Your task to perform on an android device: allow cookies in the chrome app Image 0: 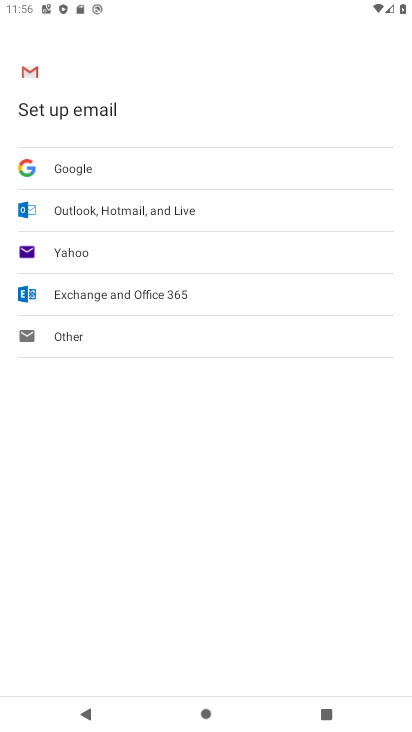
Step 0: press home button
Your task to perform on an android device: allow cookies in the chrome app Image 1: 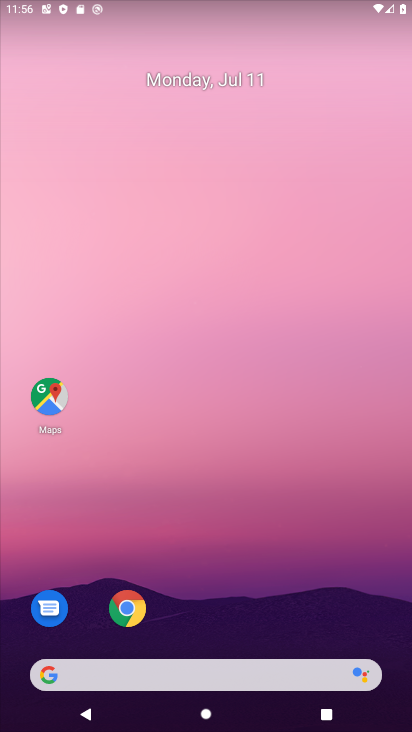
Step 1: click (123, 600)
Your task to perform on an android device: allow cookies in the chrome app Image 2: 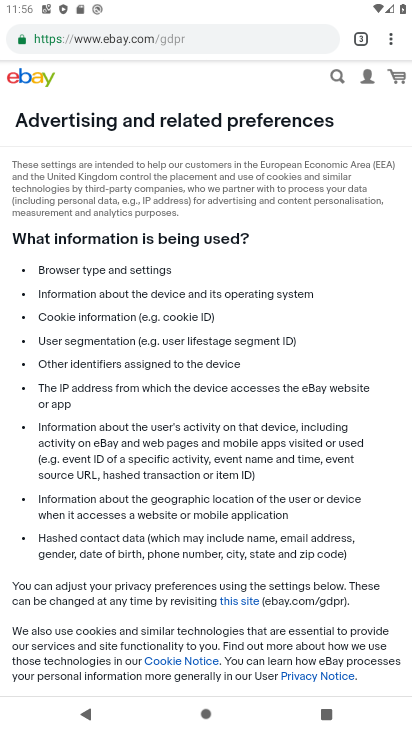
Step 2: click (401, 40)
Your task to perform on an android device: allow cookies in the chrome app Image 3: 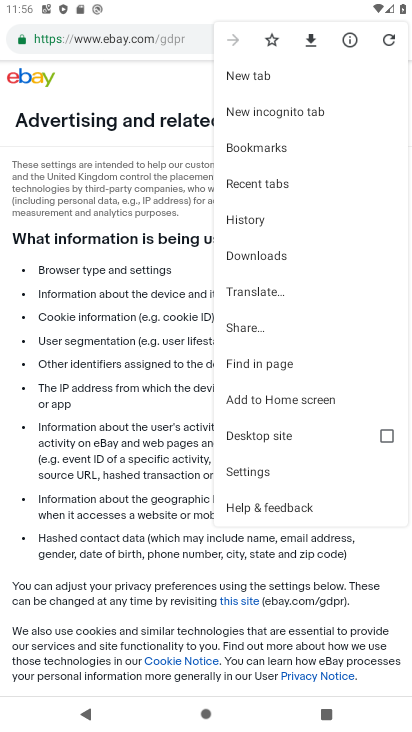
Step 3: click (250, 465)
Your task to perform on an android device: allow cookies in the chrome app Image 4: 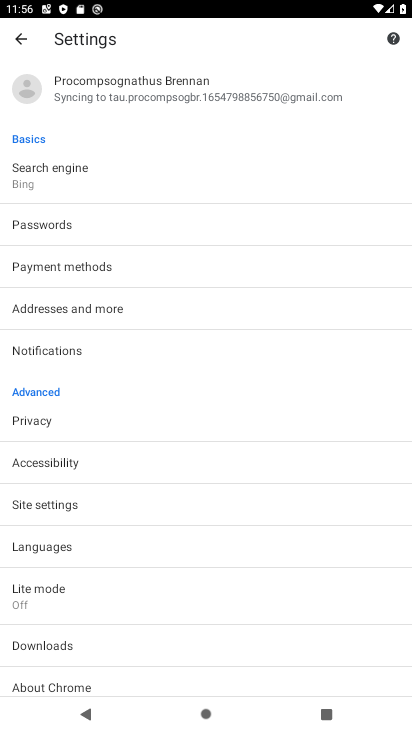
Step 4: drag from (131, 654) to (145, 197)
Your task to perform on an android device: allow cookies in the chrome app Image 5: 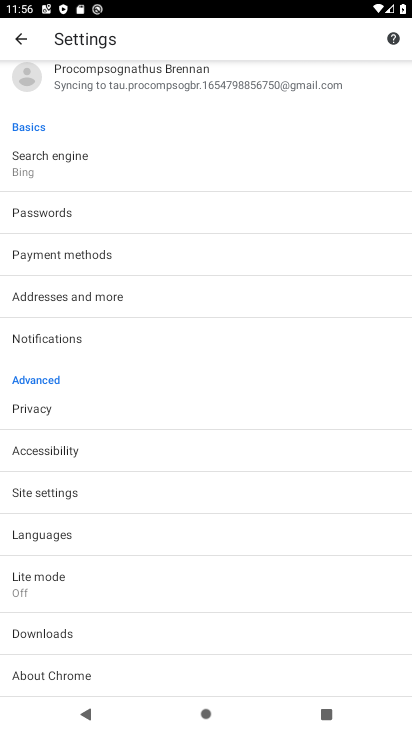
Step 5: drag from (82, 667) to (195, 133)
Your task to perform on an android device: allow cookies in the chrome app Image 6: 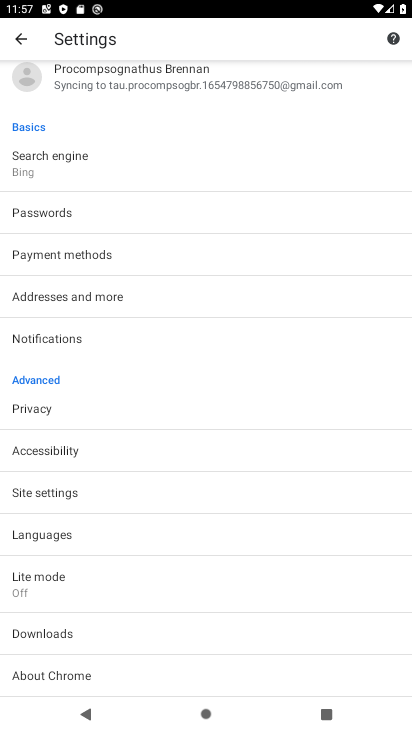
Step 6: click (77, 489)
Your task to perform on an android device: allow cookies in the chrome app Image 7: 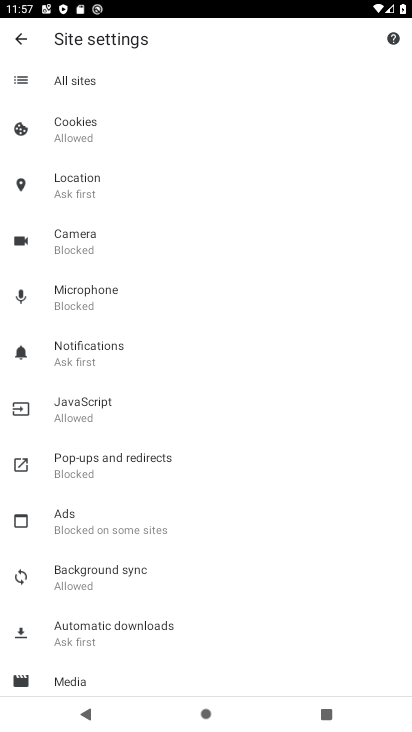
Step 7: click (154, 124)
Your task to perform on an android device: allow cookies in the chrome app Image 8: 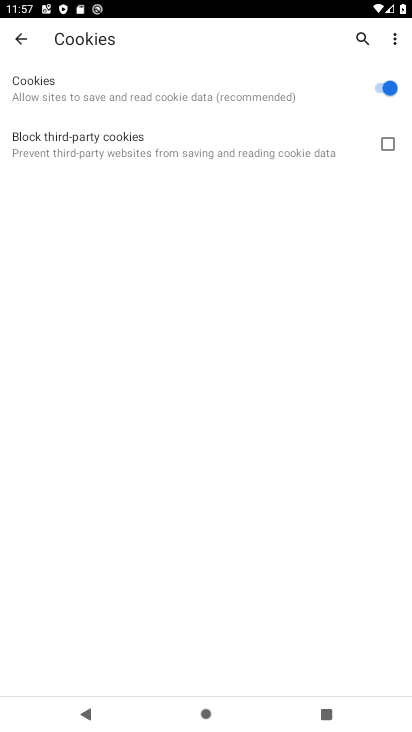
Step 8: task complete